Your task to perform on an android device: Go to notification settings Image 0: 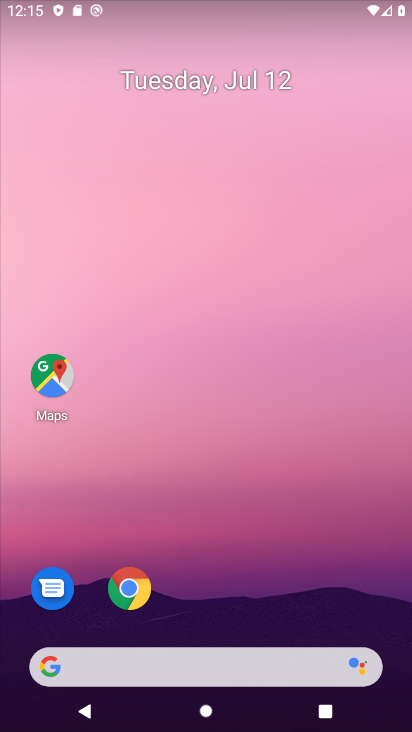
Step 0: drag from (249, 691) to (247, 97)
Your task to perform on an android device: Go to notification settings Image 1: 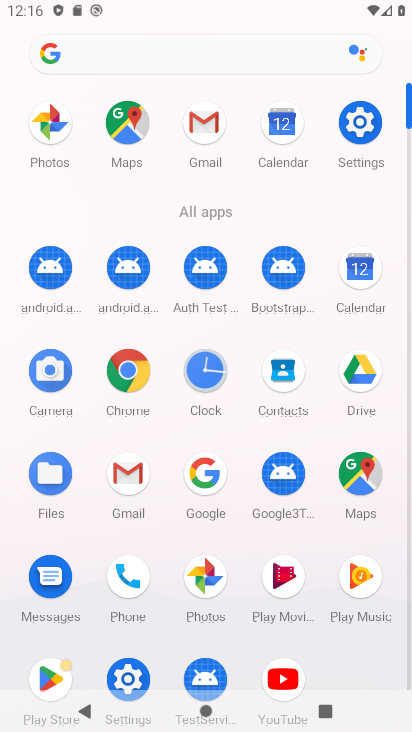
Step 1: click (359, 121)
Your task to perform on an android device: Go to notification settings Image 2: 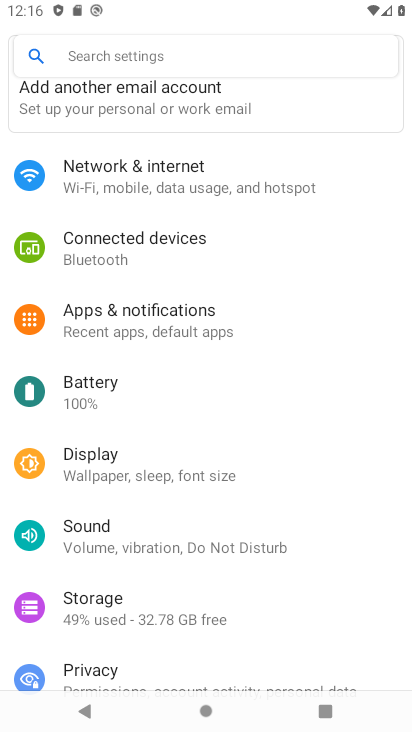
Step 2: click (148, 322)
Your task to perform on an android device: Go to notification settings Image 3: 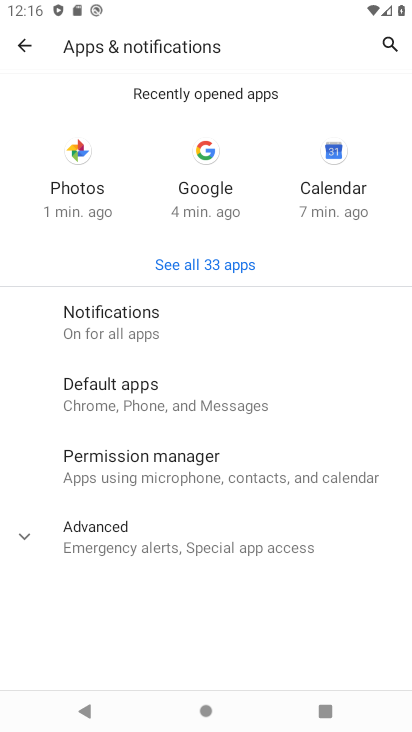
Step 3: click (99, 320)
Your task to perform on an android device: Go to notification settings Image 4: 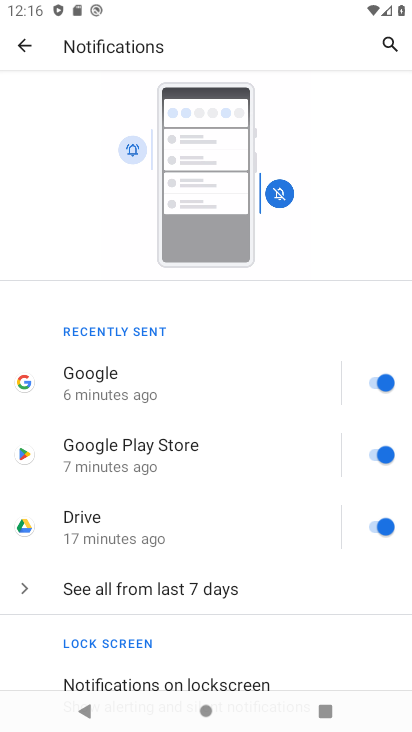
Step 4: task complete